Your task to perform on an android device: Search for hotels in Las Vegas Image 0: 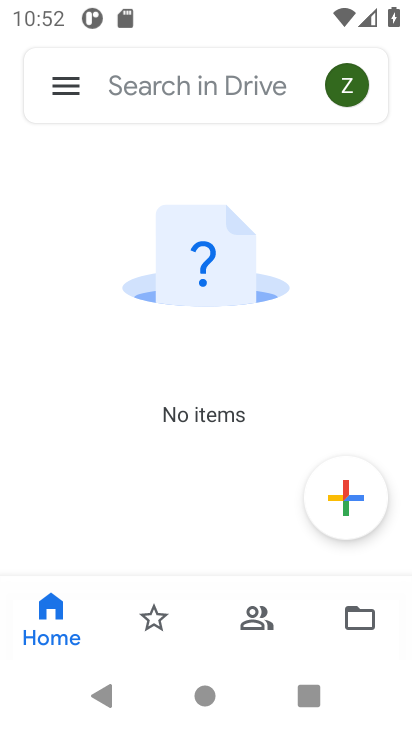
Step 0: press home button
Your task to perform on an android device: Search for hotels in Las Vegas Image 1: 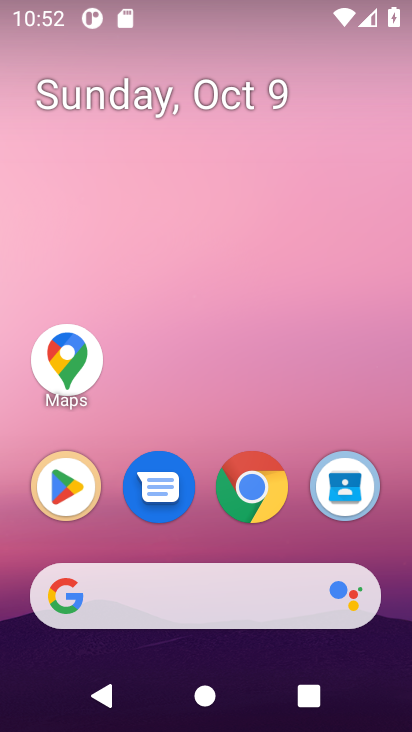
Step 1: click (244, 495)
Your task to perform on an android device: Search for hotels in Las Vegas Image 2: 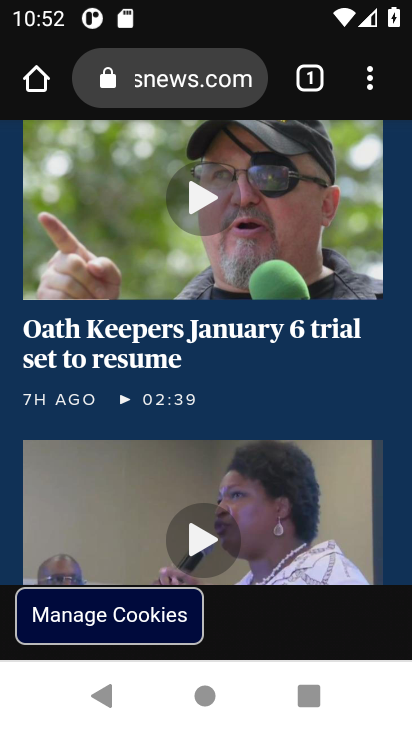
Step 2: click (213, 94)
Your task to perform on an android device: Search for hotels in Las Vegas Image 3: 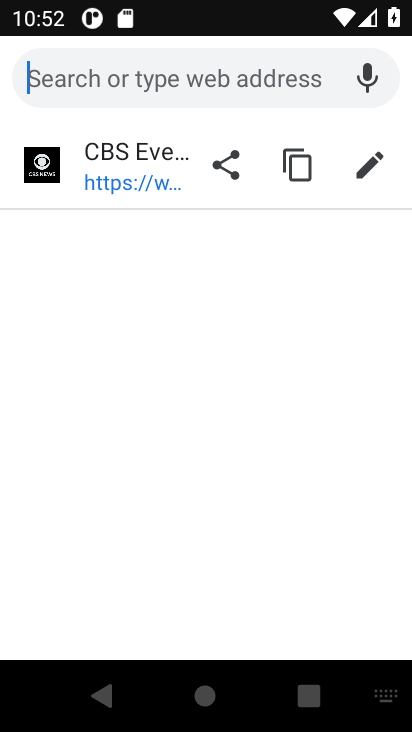
Step 3: type "hotels in Las Vegas"
Your task to perform on an android device: Search for hotels in Las Vegas Image 4: 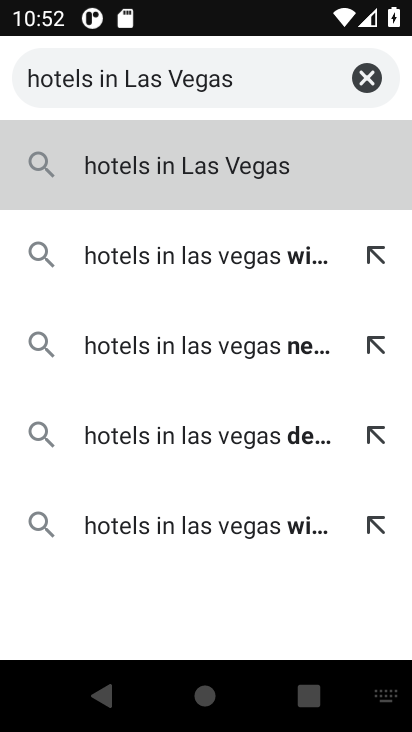
Step 4: type ""
Your task to perform on an android device: Search for hotels in Las Vegas Image 5: 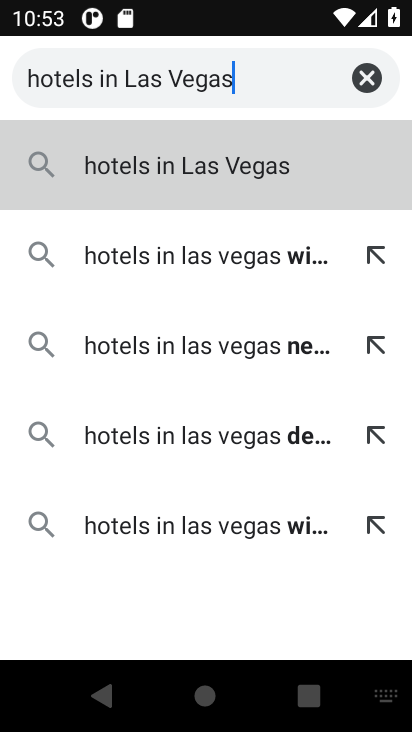
Step 5: press enter
Your task to perform on an android device: Search for hotels in Las Vegas Image 6: 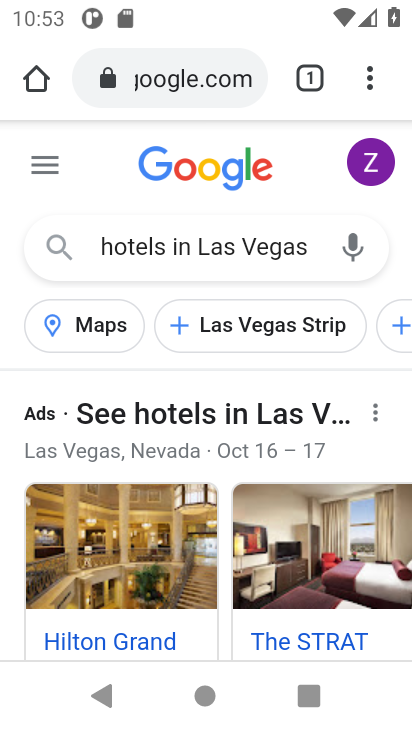
Step 6: drag from (357, 523) to (333, 178)
Your task to perform on an android device: Search for hotels in Las Vegas Image 7: 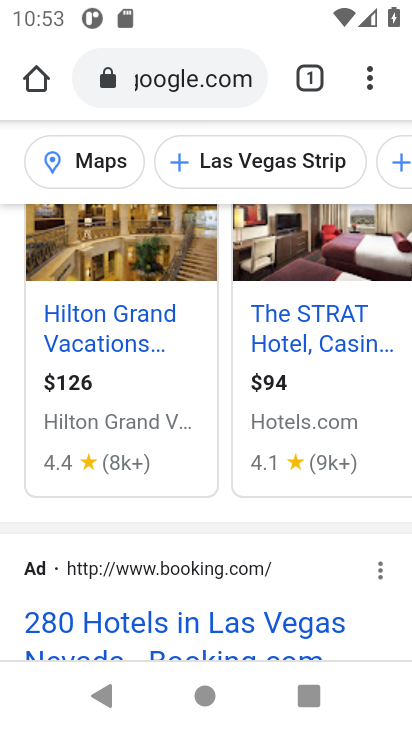
Step 7: drag from (310, 542) to (320, 321)
Your task to perform on an android device: Search for hotels in Las Vegas Image 8: 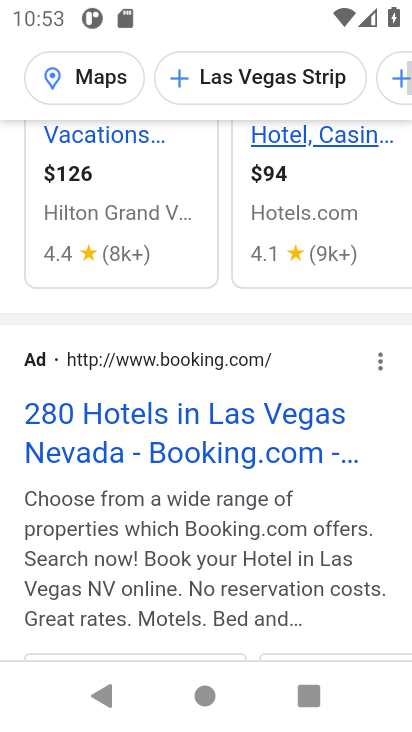
Step 8: click (182, 445)
Your task to perform on an android device: Search for hotels in Las Vegas Image 9: 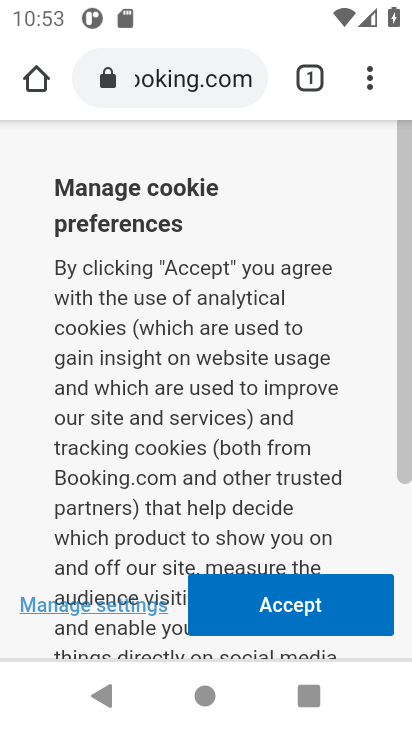
Step 9: click (332, 620)
Your task to perform on an android device: Search for hotels in Las Vegas Image 10: 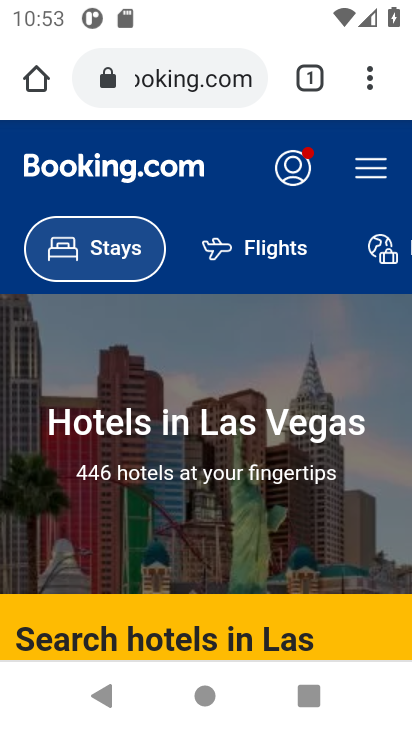
Step 10: task complete